Your task to perform on an android device: Go to settings Image 0: 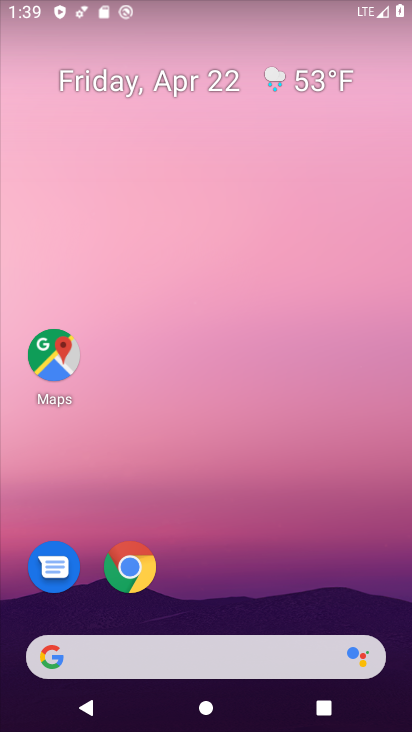
Step 0: drag from (370, 603) to (241, 151)
Your task to perform on an android device: Go to settings Image 1: 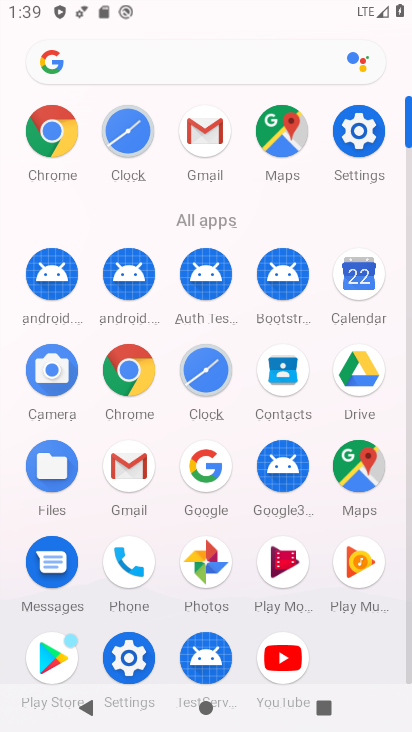
Step 1: click (127, 656)
Your task to perform on an android device: Go to settings Image 2: 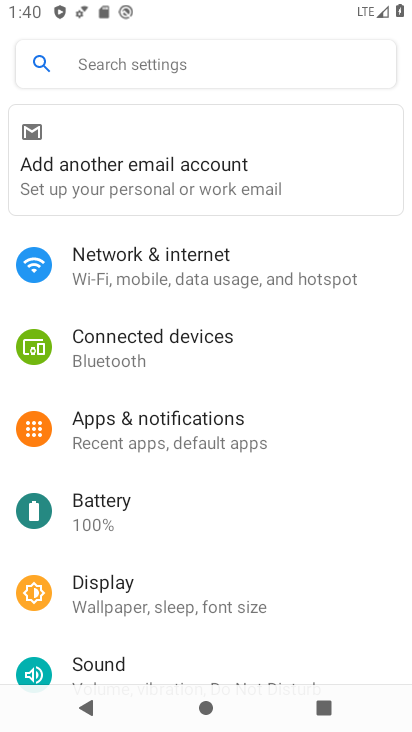
Step 2: task complete